Your task to perform on an android device: turn on the 24-hour format for clock Image 0: 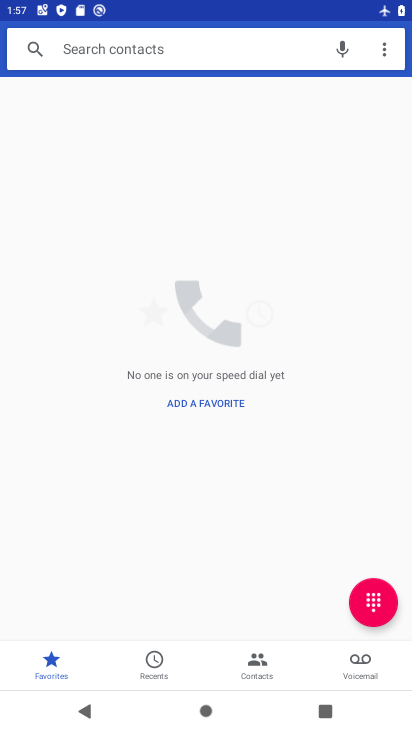
Step 0: press home button
Your task to perform on an android device: turn on the 24-hour format for clock Image 1: 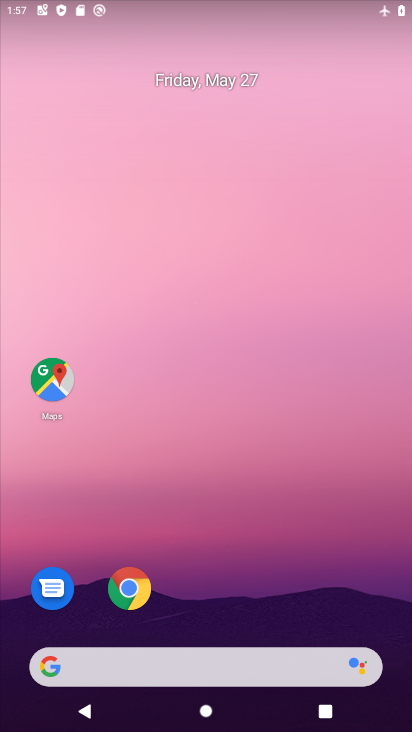
Step 1: drag from (365, 607) to (339, 69)
Your task to perform on an android device: turn on the 24-hour format for clock Image 2: 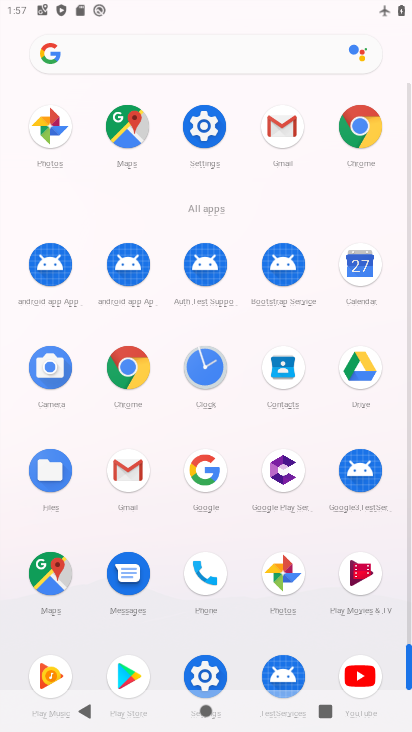
Step 2: click (202, 364)
Your task to perform on an android device: turn on the 24-hour format for clock Image 3: 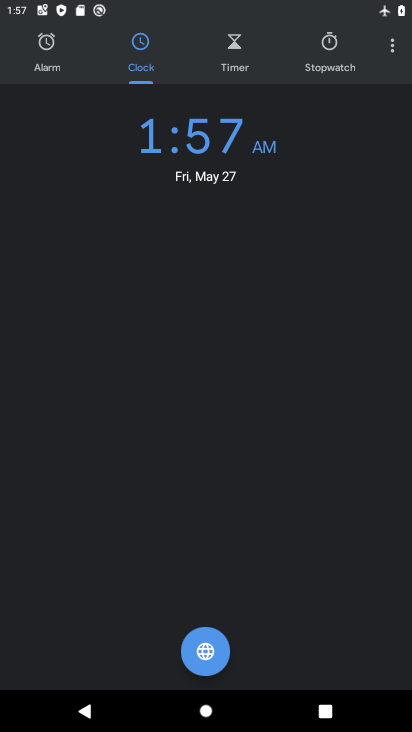
Step 3: click (394, 43)
Your task to perform on an android device: turn on the 24-hour format for clock Image 4: 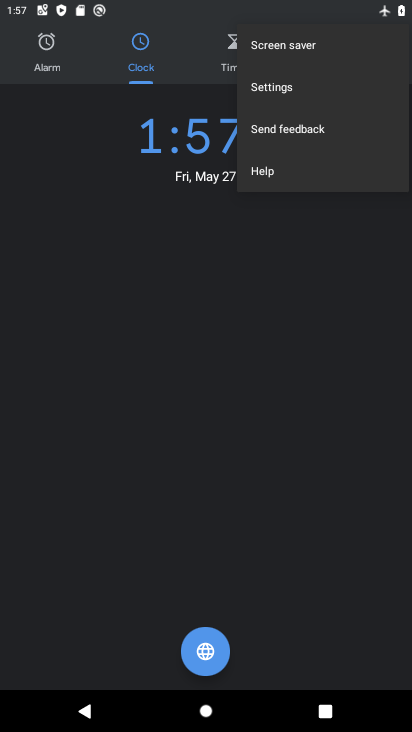
Step 4: click (283, 88)
Your task to perform on an android device: turn on the 24-hour format for clock Image 5: 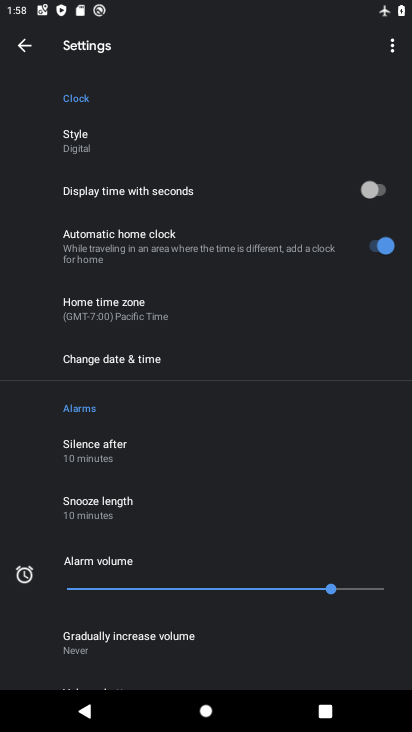
Step 5: click (151, 357)
Your task to perform on an android device: turn on the 24-hour format for clock Image 6: 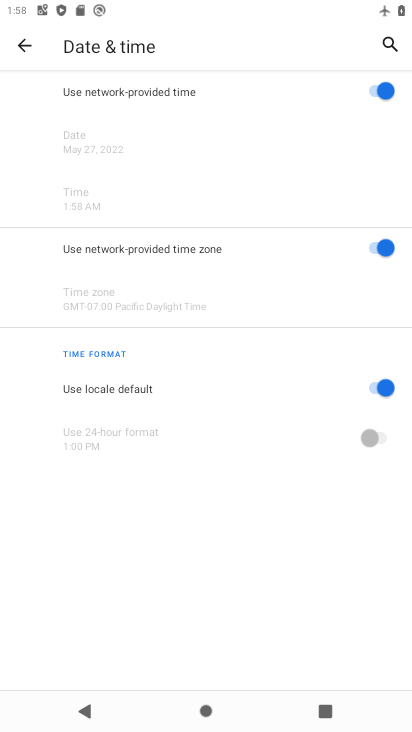
Step 6: click (367, 382)
Your task to perform on an android device: turn on the 24-hour format for clock Image 7: 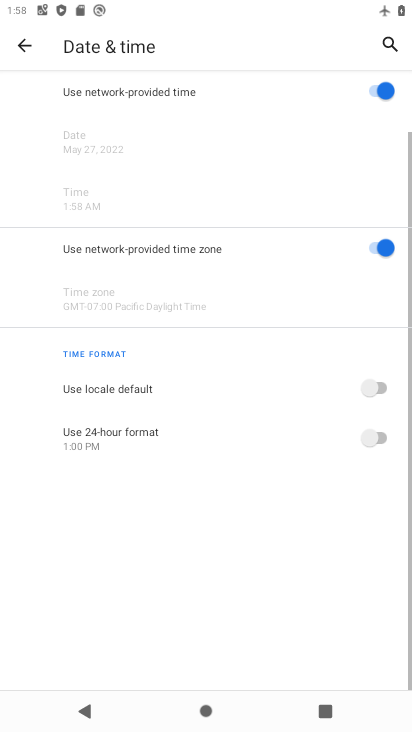
Step 7: click (383, 436)
Your task to perform on an android device: turn on the 24-hour format for clock Image 8: 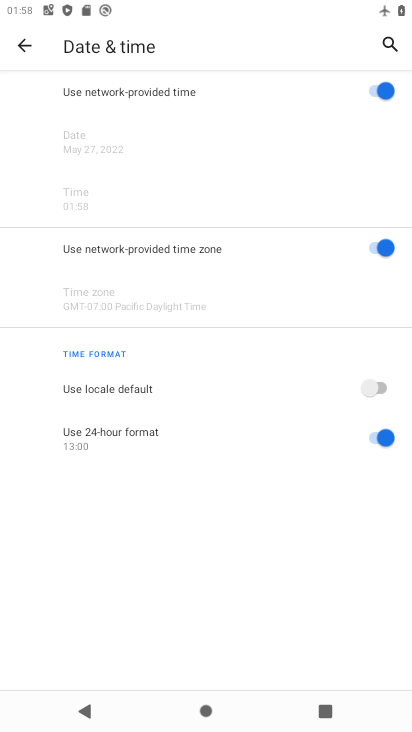
Step 8: task complete